Your task to perform on an android device: Go to eBay Image 0: 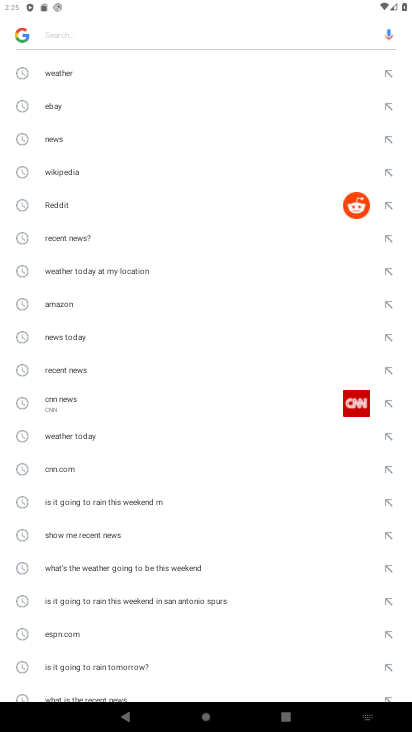
Step 0: click (67, 98)
Your task to perform on an android device: Go to eBay Image 1: 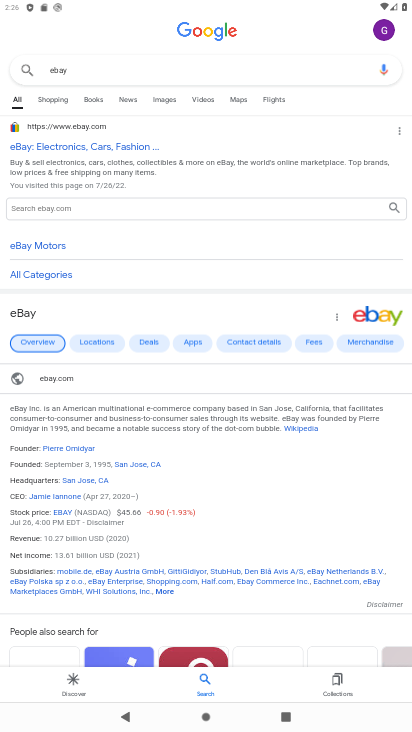
Step 1: click (90, 139)
Your task to perform on an android device: Go to eBay Image 2: 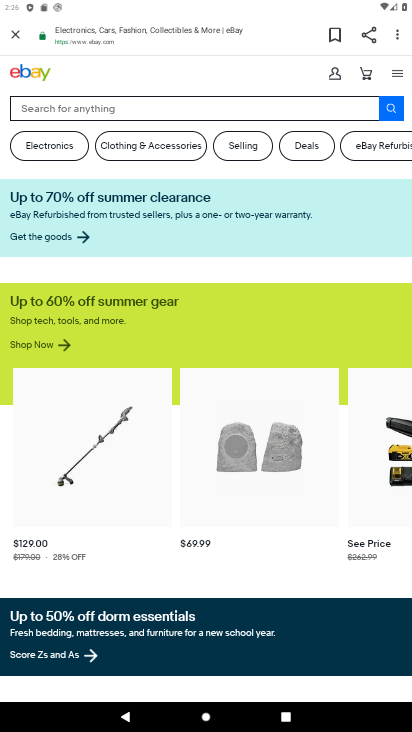
Step 2: task complete